Your task to perform on an android device: turn on priority inbox in the gmail app Image 0: 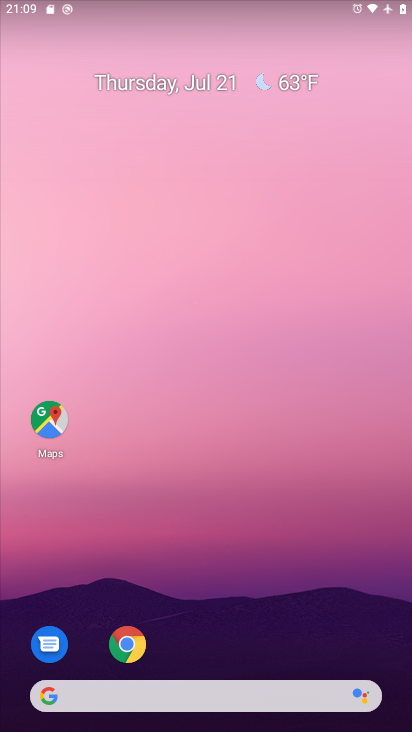
Step 0: drag from (227, 625) to (227, 81)
Your task to perform on an android device: turn on priority inbox in the gmail app Image 1: 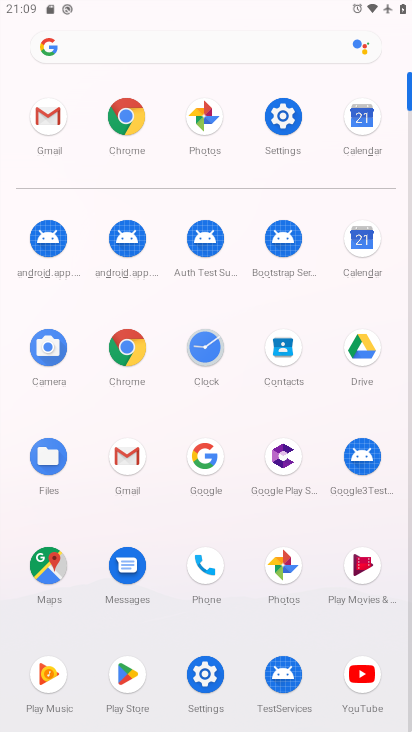
Step 1: click (49, 105)
Your task to perform on an android device: turn on priority inbox in the gmail app Image 2: 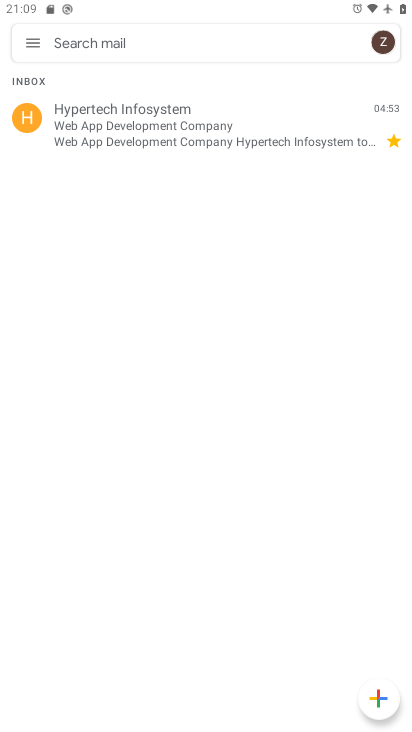
Step 2: click (27, 39)
Your task to perform on an android device: turn on priority inbox in the gmail app Image 3: 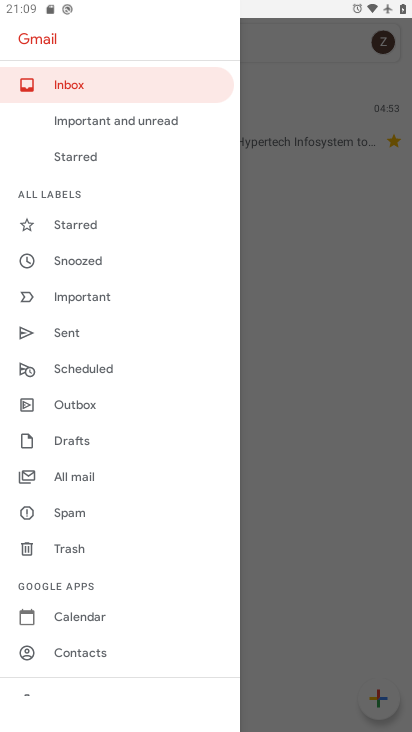
Step 3: drag from (116, 627) to (121, 350)
Your task to perform on an android device: turn on priority inbox in the gmail app Image 4: 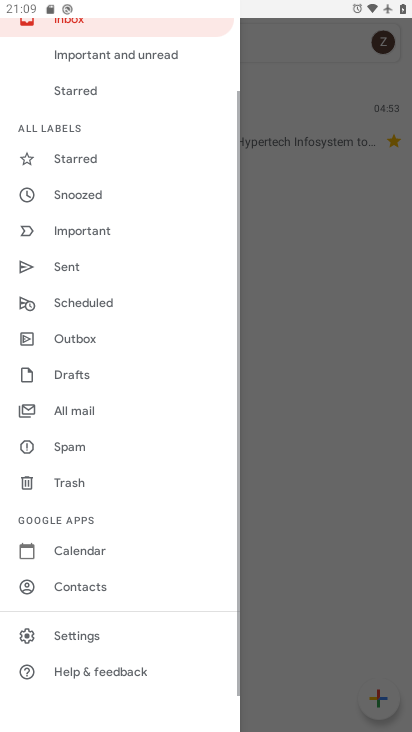
Step 4: click (79, 633)
Your task to perform on an android device: turn on priority inbox in the gmail app Image 5: 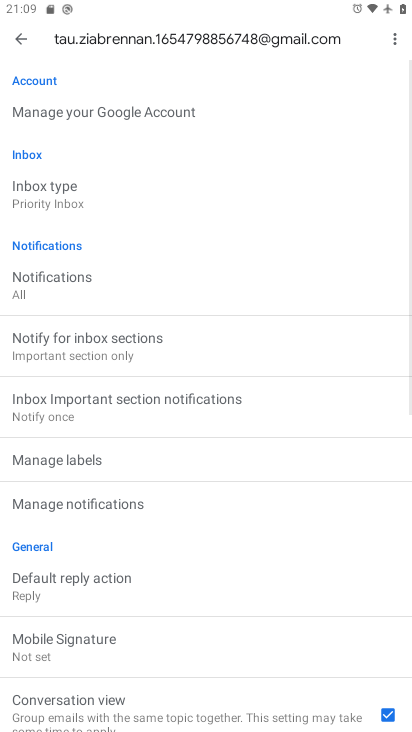
Step 5: click (67, 183)
Your task to perform on an android device: turn on priority inbox in the gmail app Image 6: 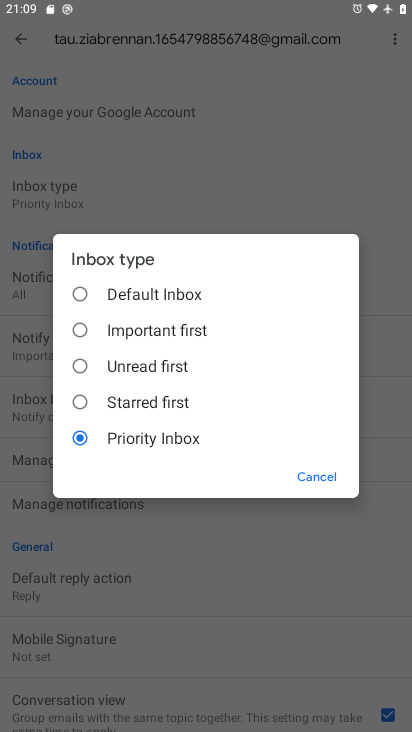
Step 6: task complete